Your task to perform on an android device: Open CNN.com Image 0: 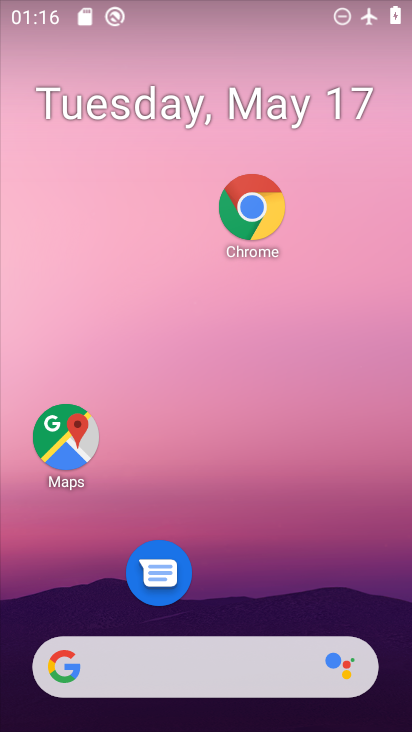
Step 0: drag from (134, 604) to (163, 99)
Your task to perform on an android device: Open CNN.com Image 1: 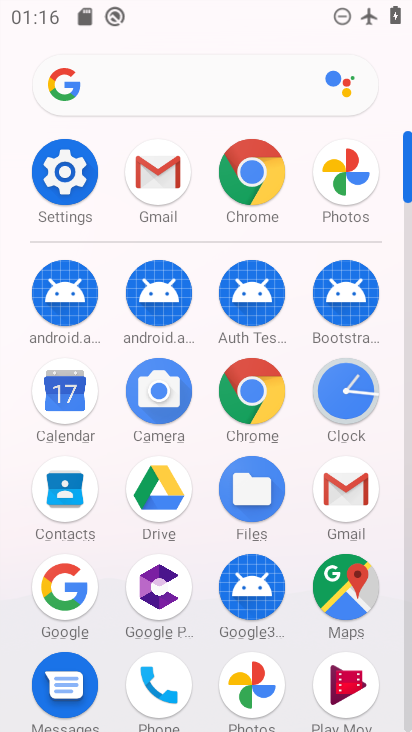
Step 1: click (251, 409)
Your task to perform on an android device: Open CNN.com Image 2: 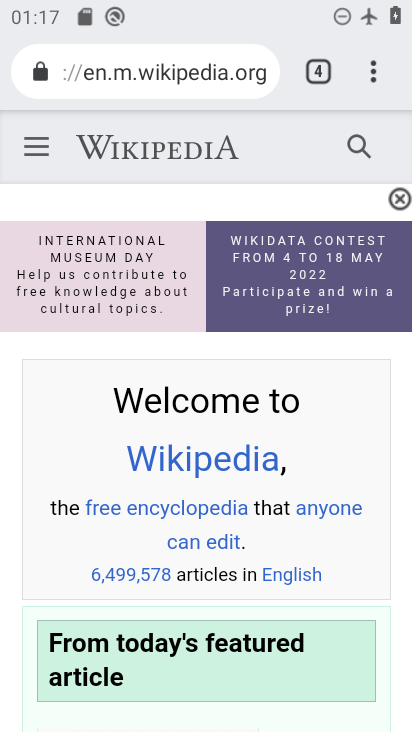
Step 2: click (208, 60)
Your task to perform on an android device: Open CNN.com Image 3: 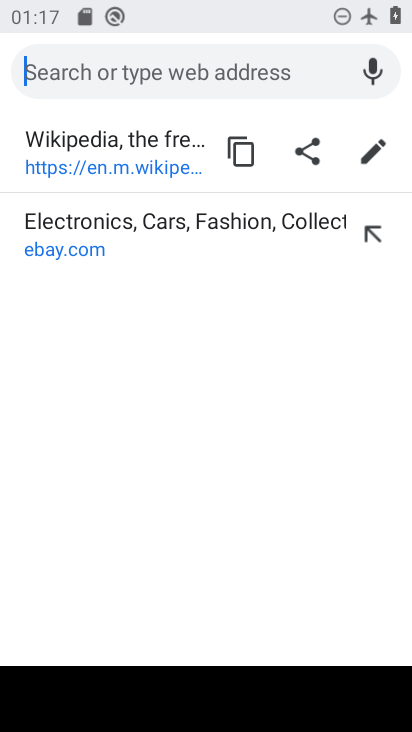
Step 3: type ""
Your task to perform on an android device: Open CNN.com Image 4: 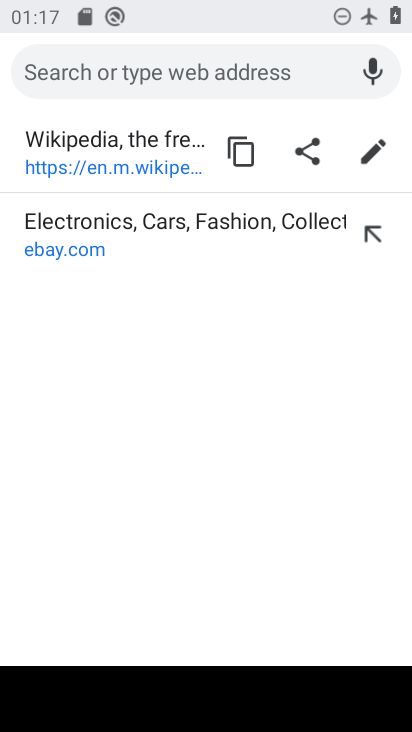
Step 4: type "cnn"
Your task to perform on an android device: Open CNN.com Image 5: 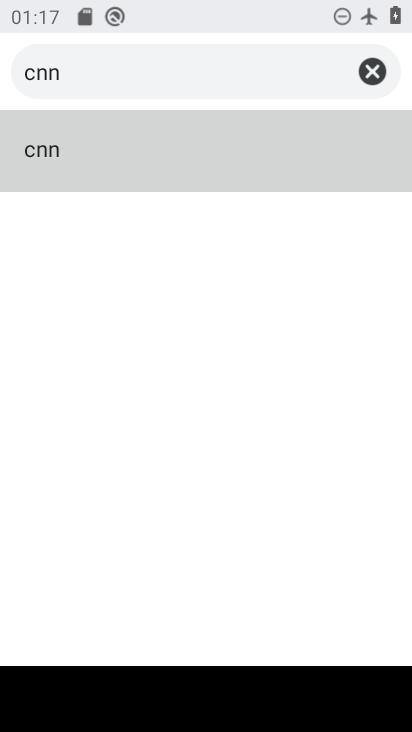
Step 5: type ".com"
Your task to perform on an android device: Open CNN.com Image 6: 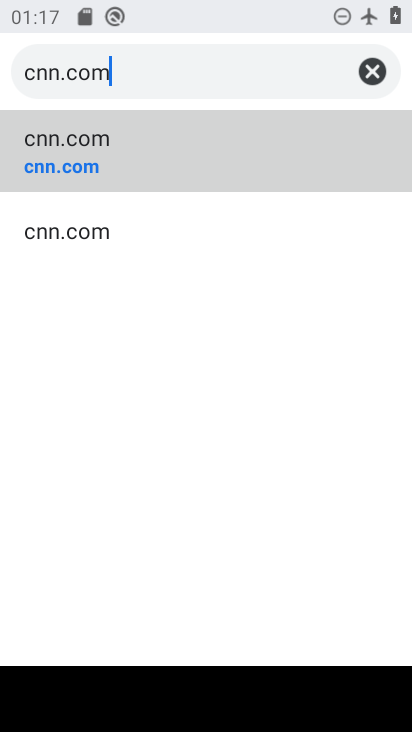
Step 6: click (173, 145)
Your task to perform on an android device: Open CNN.com Image 7: 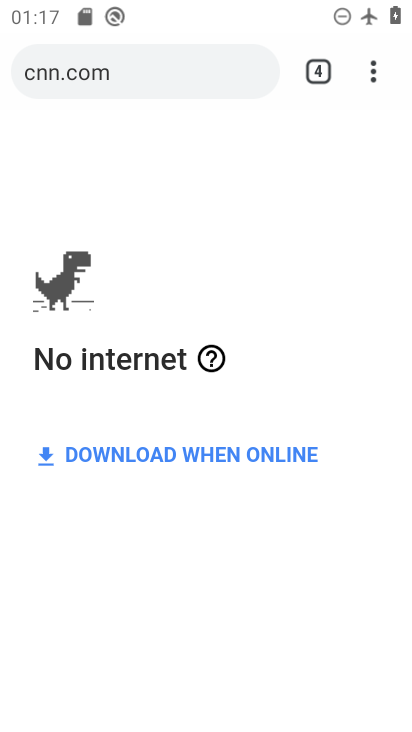
Step 7: task complete